Your task to perform on an android device: Add "macbook pro 15 inch" to the cart on target.com, then select checkout. Image 0: 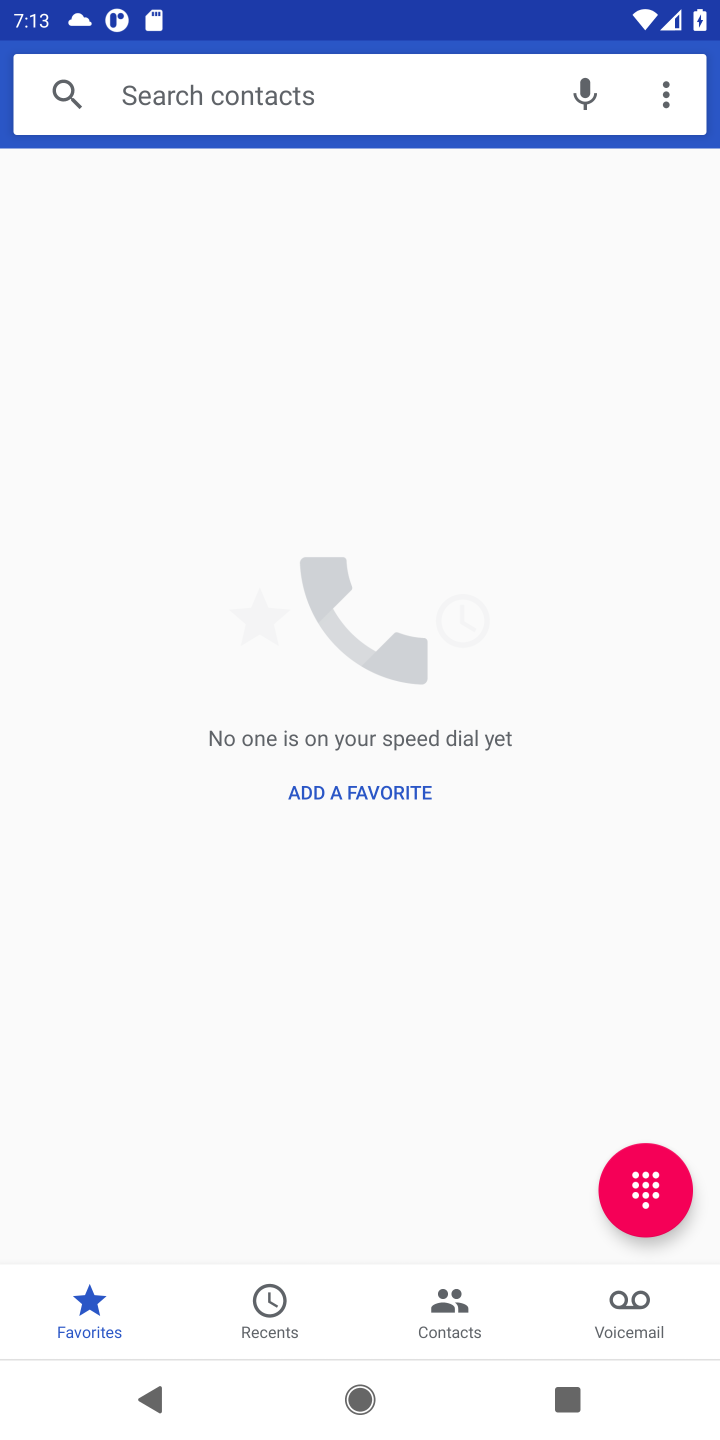
Step 0: press home button
Your task to perform on an android device: Add "macbook pro 15 inch" to the cart on target.com, then select checkout. Image 1: 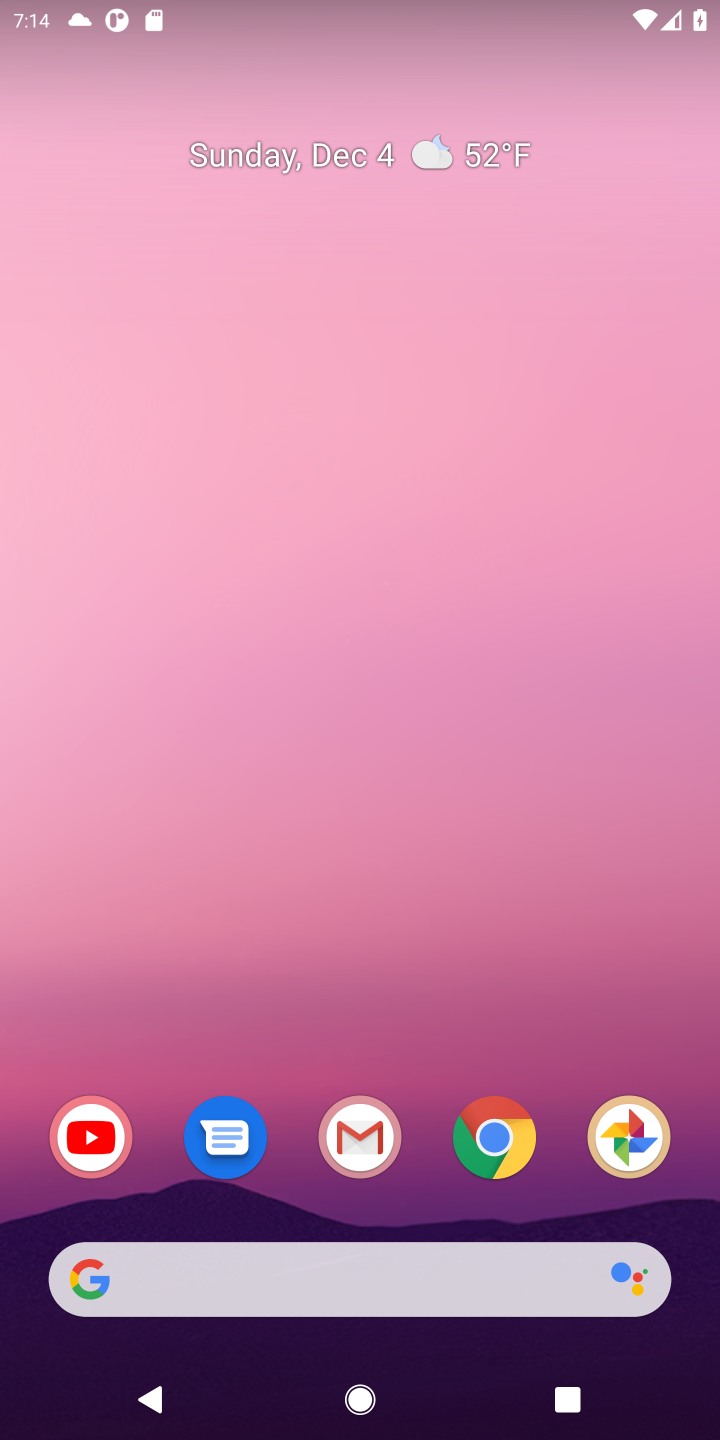
Step 1: click (495, 1139)
Your task to perform on an android device: Add "macbook pro 15 inch" to the cart on target.com, then select checkout. Image 2: 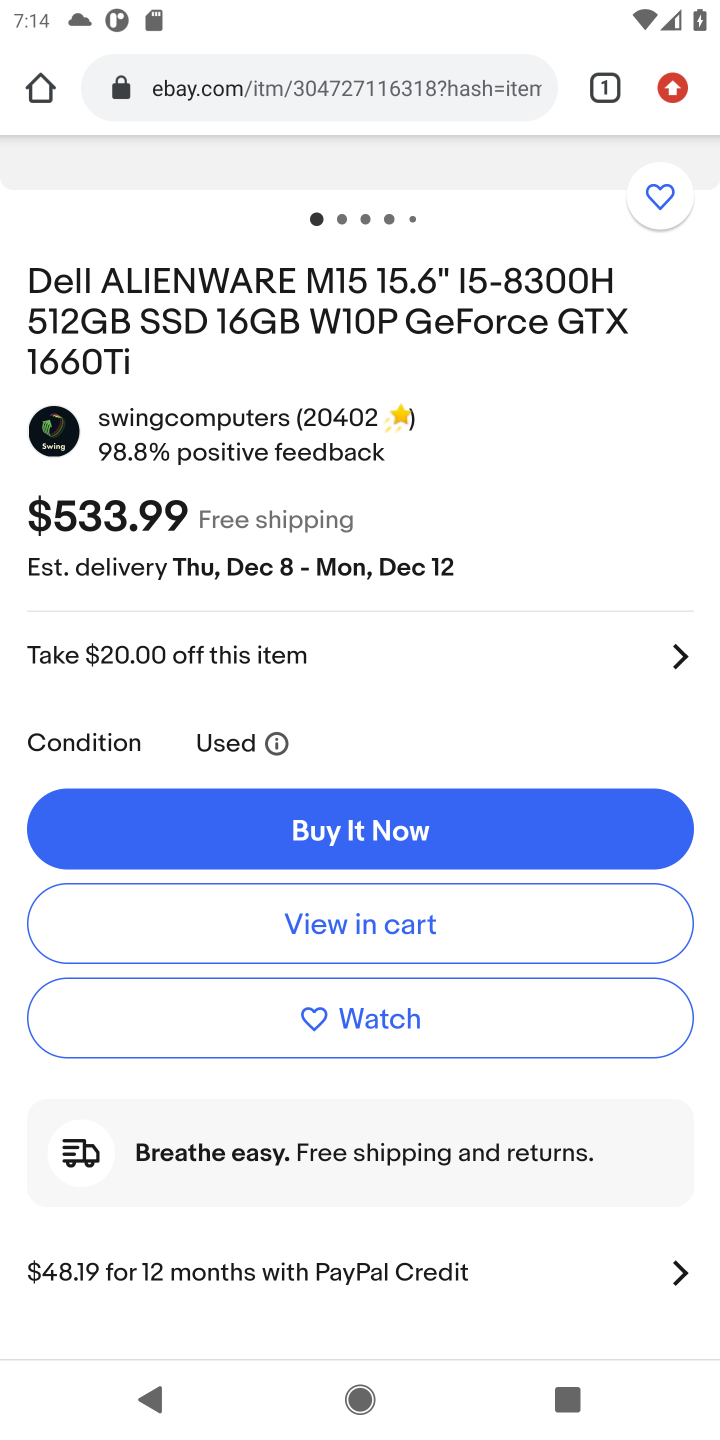
Step 2: click (420, 62)
Your task to perform on an android device: Add "macbook pro 15 inch" to the cart on target.com, then select checkout. Image 3: 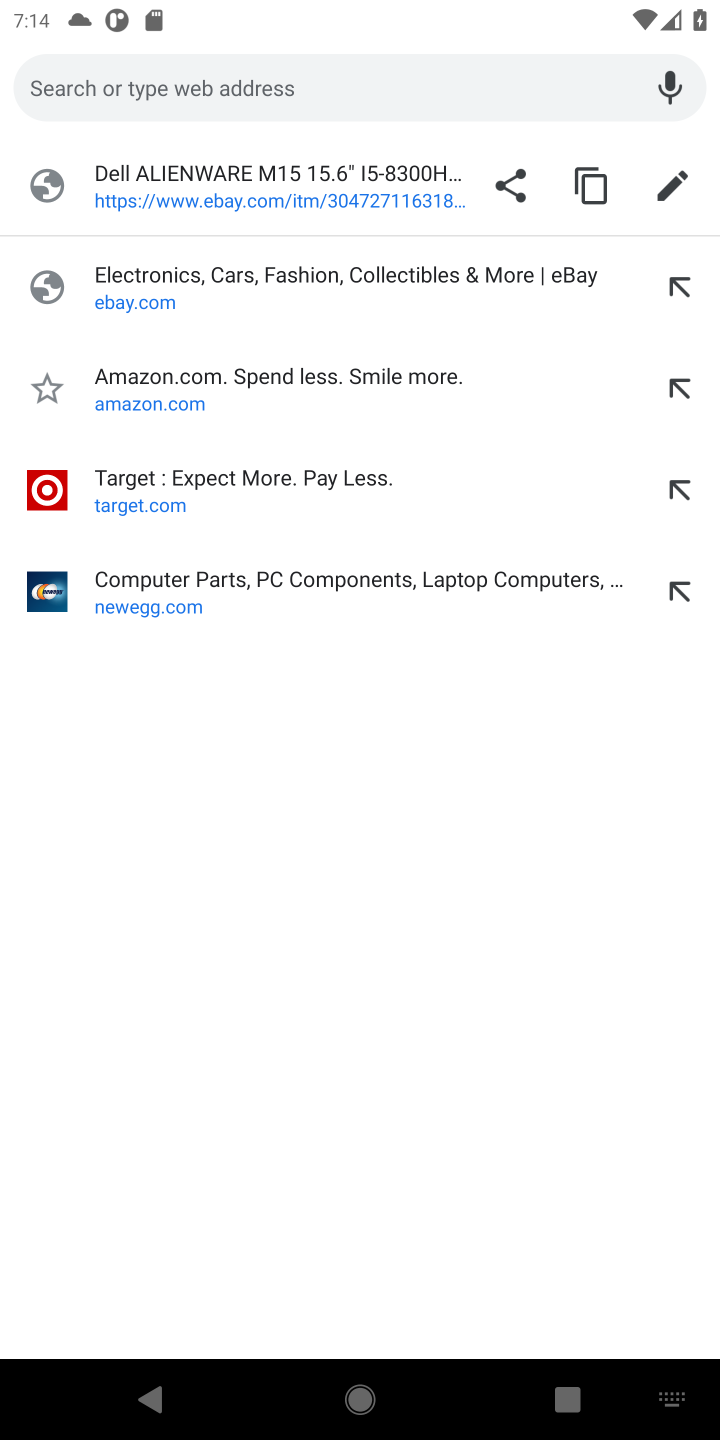
Step 3: type "target.com"
Your task to perform on an android device: Add "macbook pro 15 inch" to the cart on target.com, then select checkout. Image 4: 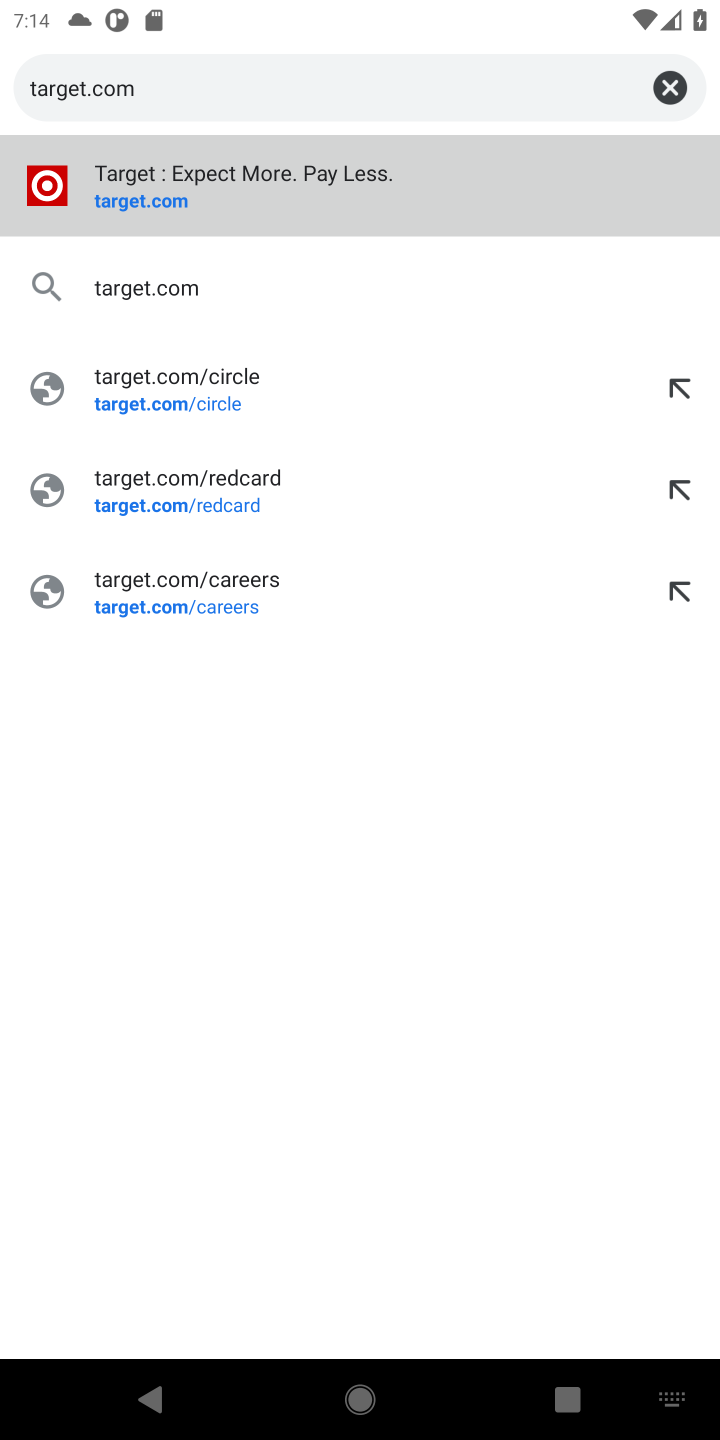
Step 4: click (135, 175)
Your task to perform on an android device: Add "macbook pro 15 inch" to the cart on target.com, then select checkout. Image 5: 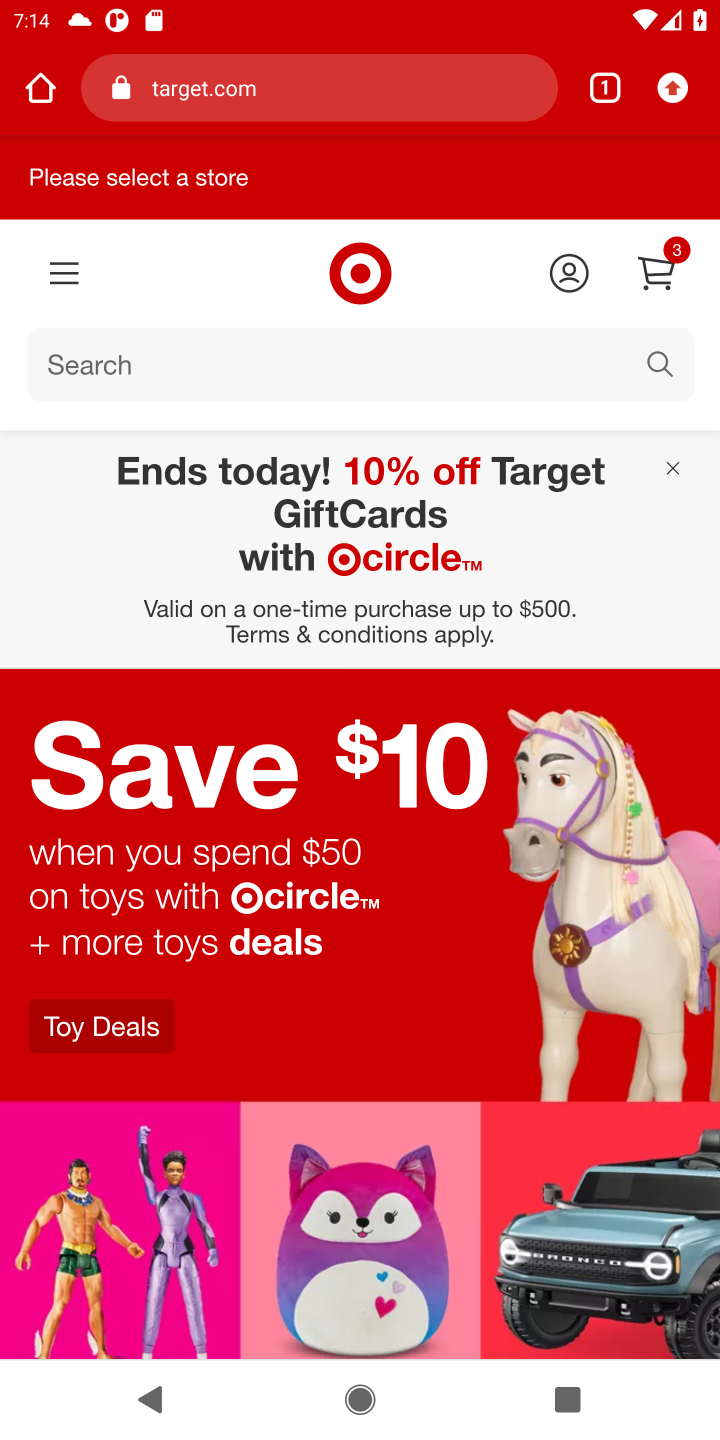
Step 5: click (184, 365)
Your task to perform on an android device: Add "macbook pro 15 inch" to the cart on target.com, then select checkout. Image 6: 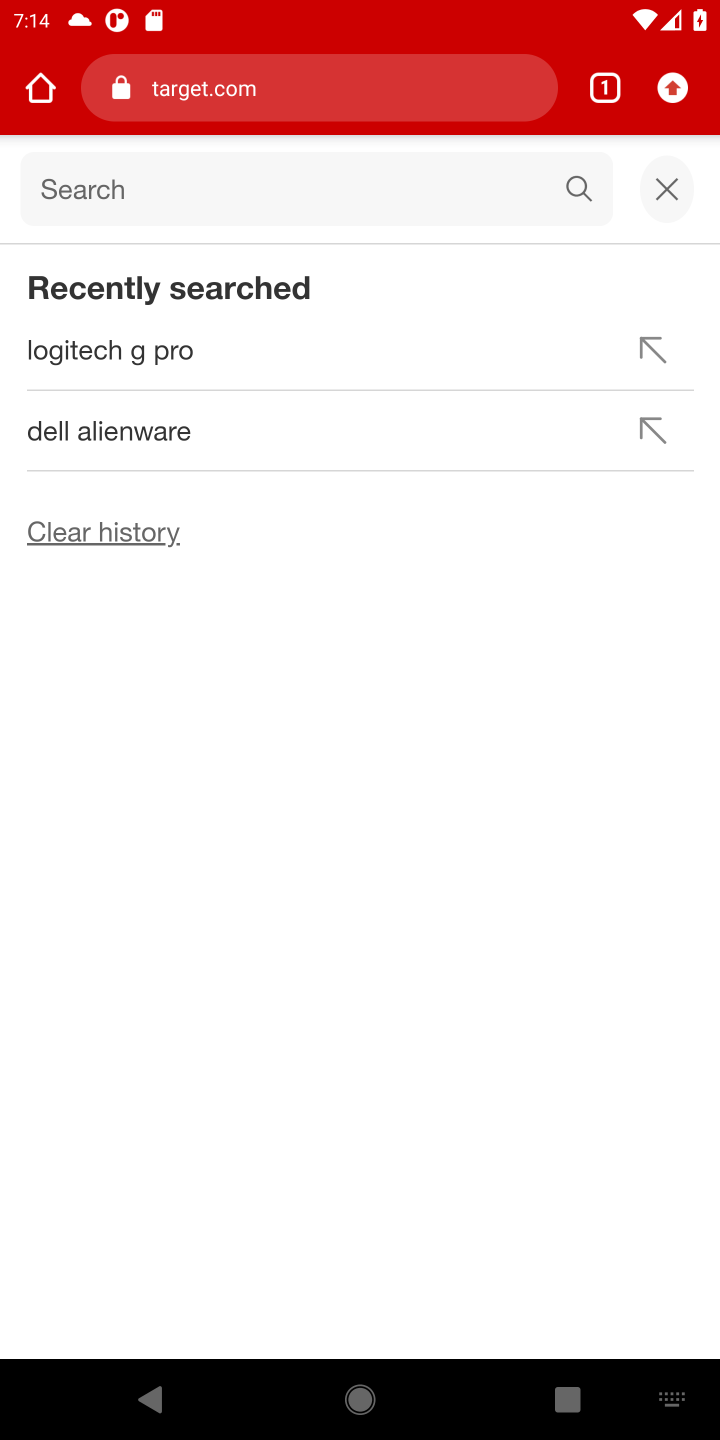
Step 6: type "macbook pro 15 inch"
Your task to perform on an android device: Add "macbook pro 15 inch" to the cart on target.com, then select checkout. Image 7: 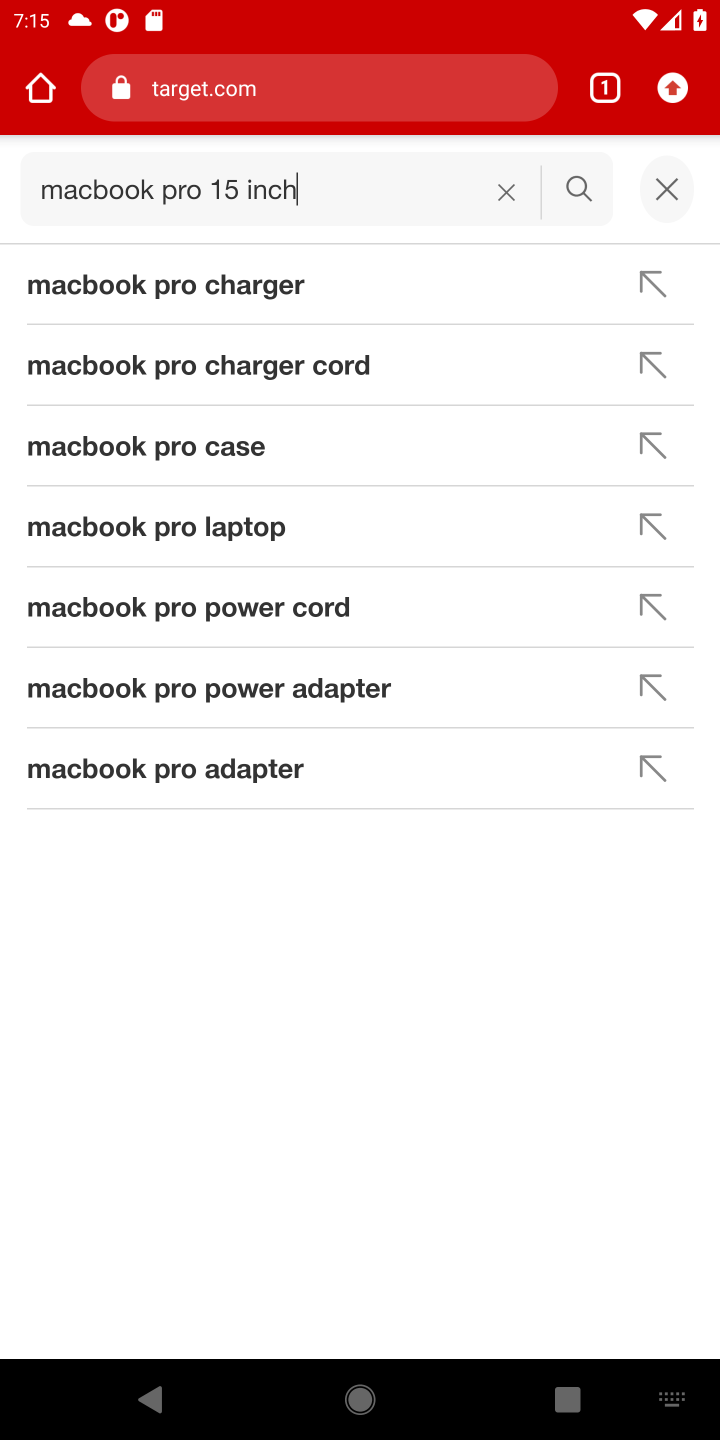
Step 7: click (579, 191)
Your task to perform on an android device: Add "macbook pro 15 inch" to the cart on target.com, then select checkout. Image 8: 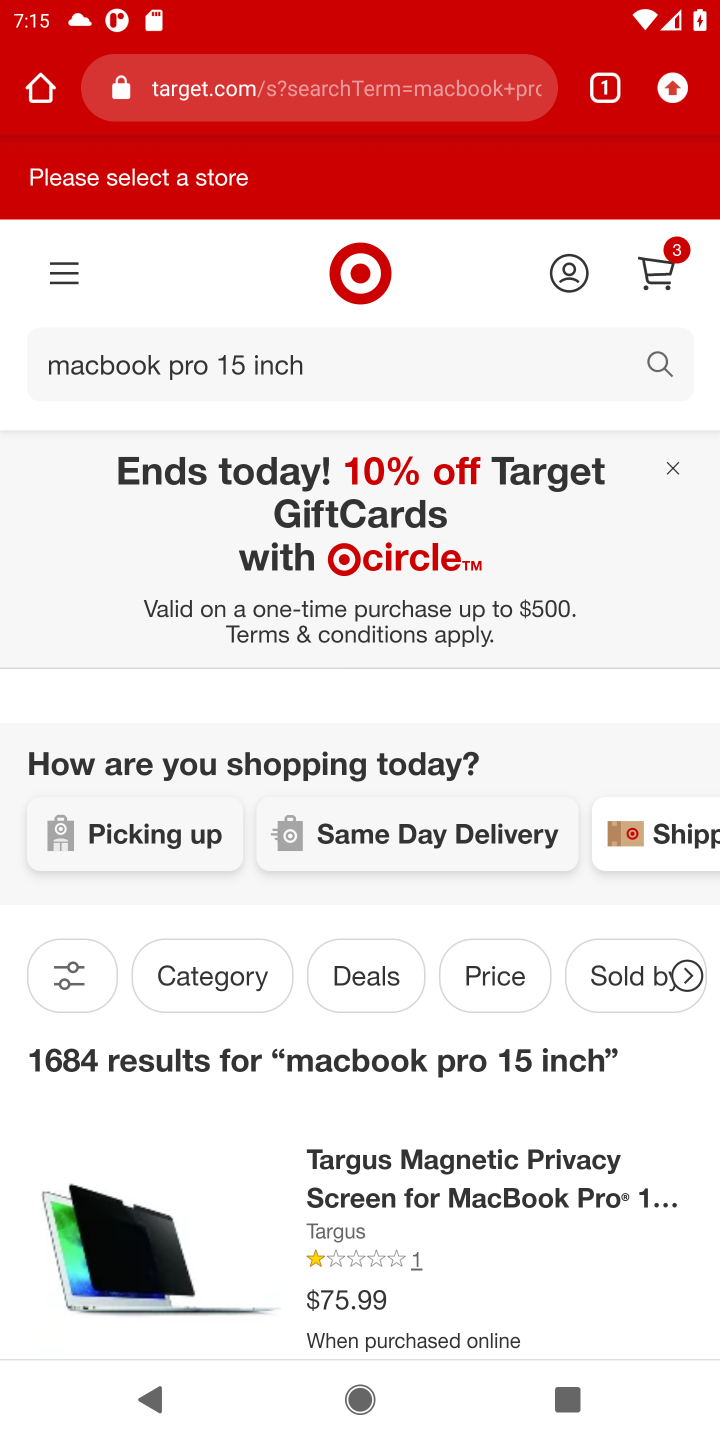
Step 8: drag from (462, 1131) to (438, 564)
Your task to perform on an android device: Add "macbook pro 15 inch" to the cart on target.com, then select checkout. Image 9: 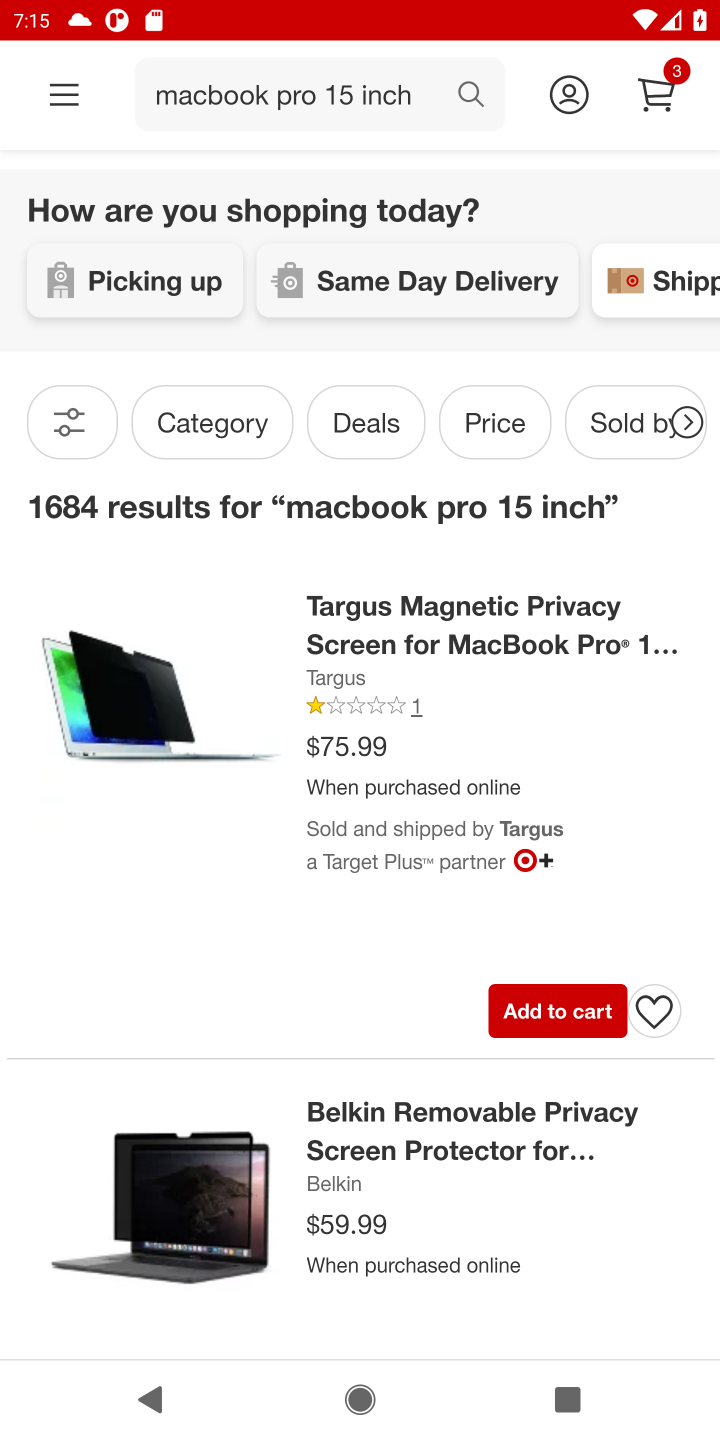
Step 9: click (399, 605)
Your task to perform on an android device: Add "macbook pro 15 inch" to the cart on target.com, then select checkout. Image 10: 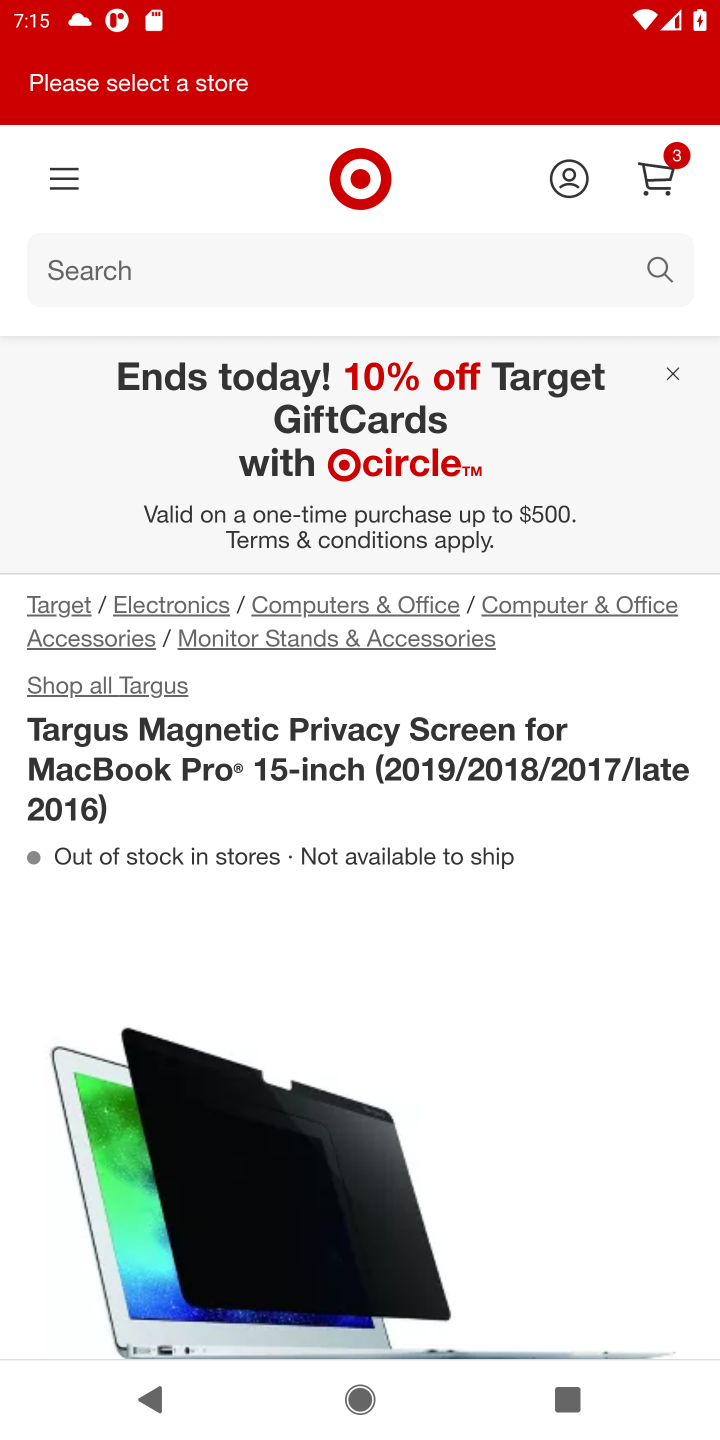
Step 10: drag from (385, 1170) to (364, 289)
Your task to perform on an android device: Add "macbook pro 15 inch" to the cart on target.com, then select checkout. Image 11: 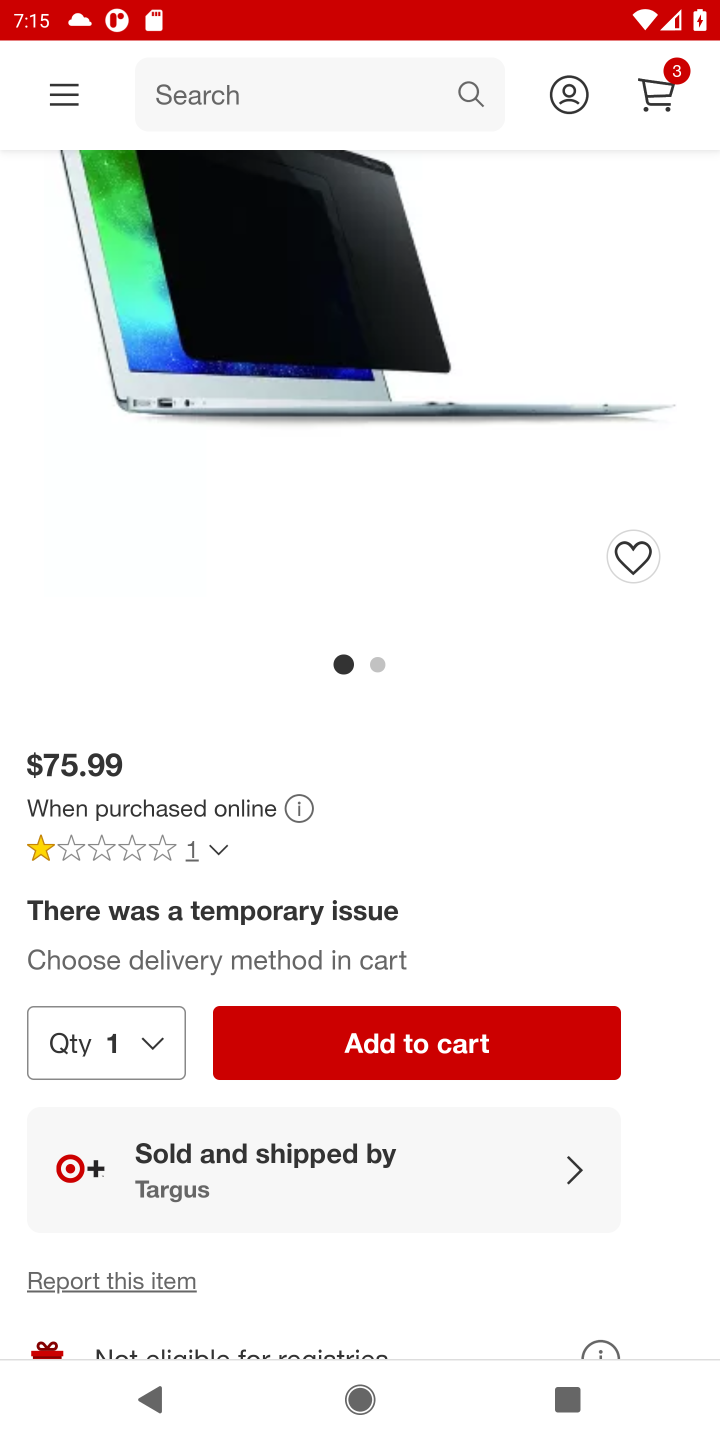
Step 11: click (406, 1047)
Your task to perform on an android device: Add "macbook pro 15 inch" to the cart on target.com, then select checkout. Image 12: 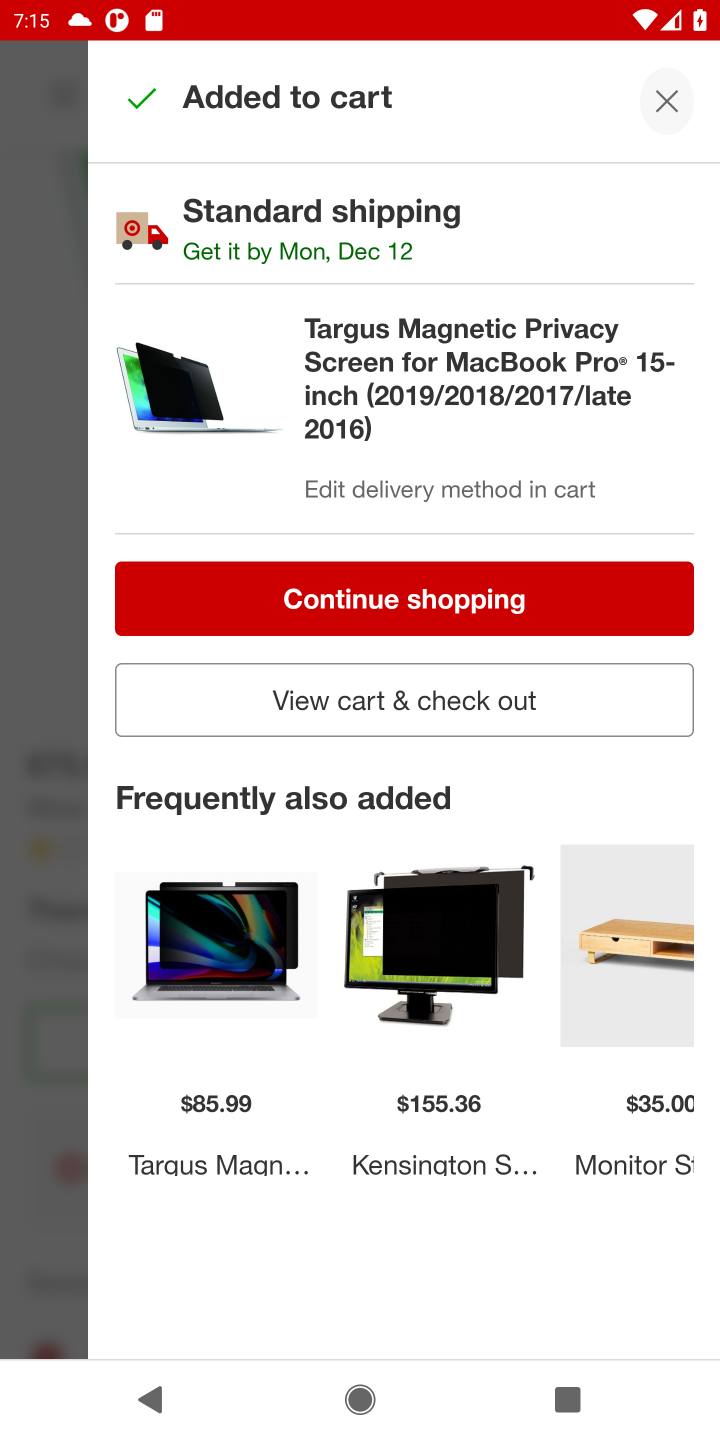
Step 12: click (361, 685)
Your task to perform on an android device: Add "macbook pro 15 inch" to the cart on target.com, then select checkout. Image 13: 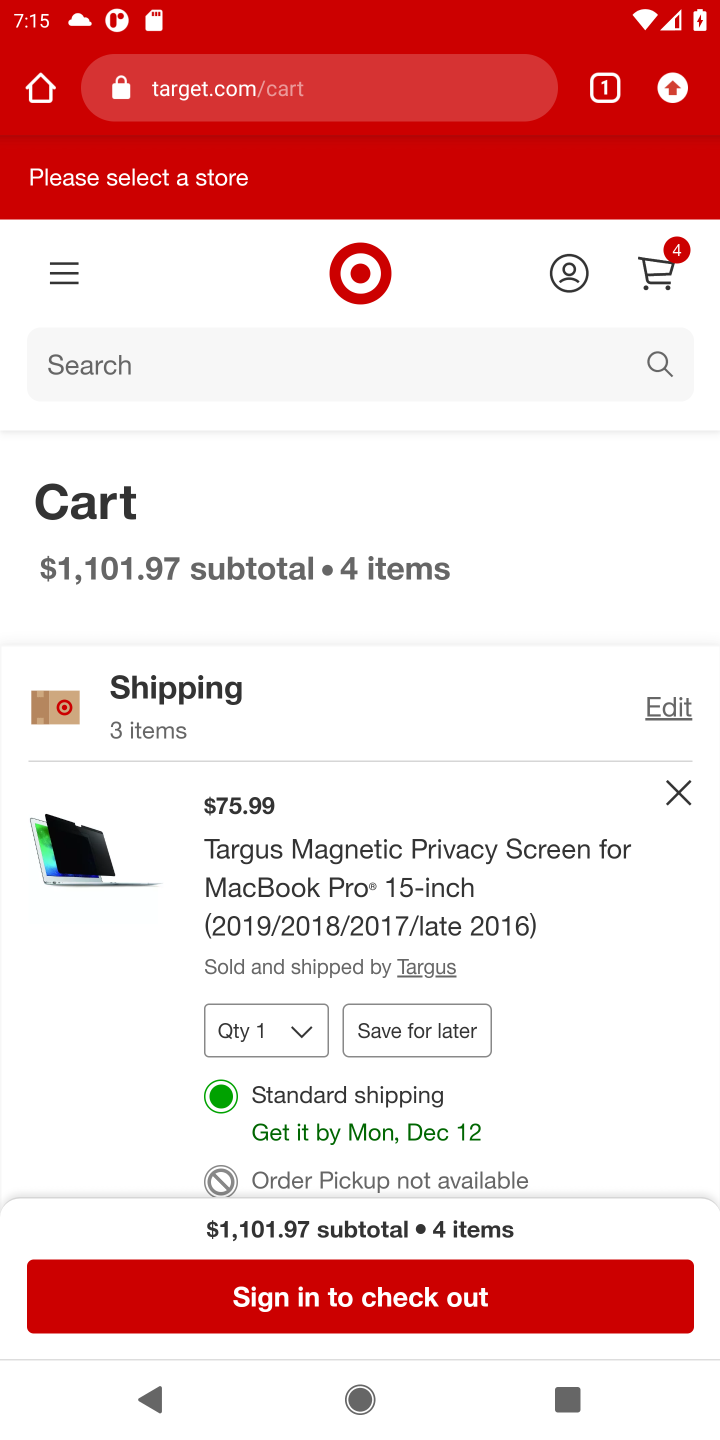
Step 13: click (344, 1301)
Your task to perform on an android device: Add "macbook pro 15 inch" to the cart on target.com, then select checkout. Image 14: 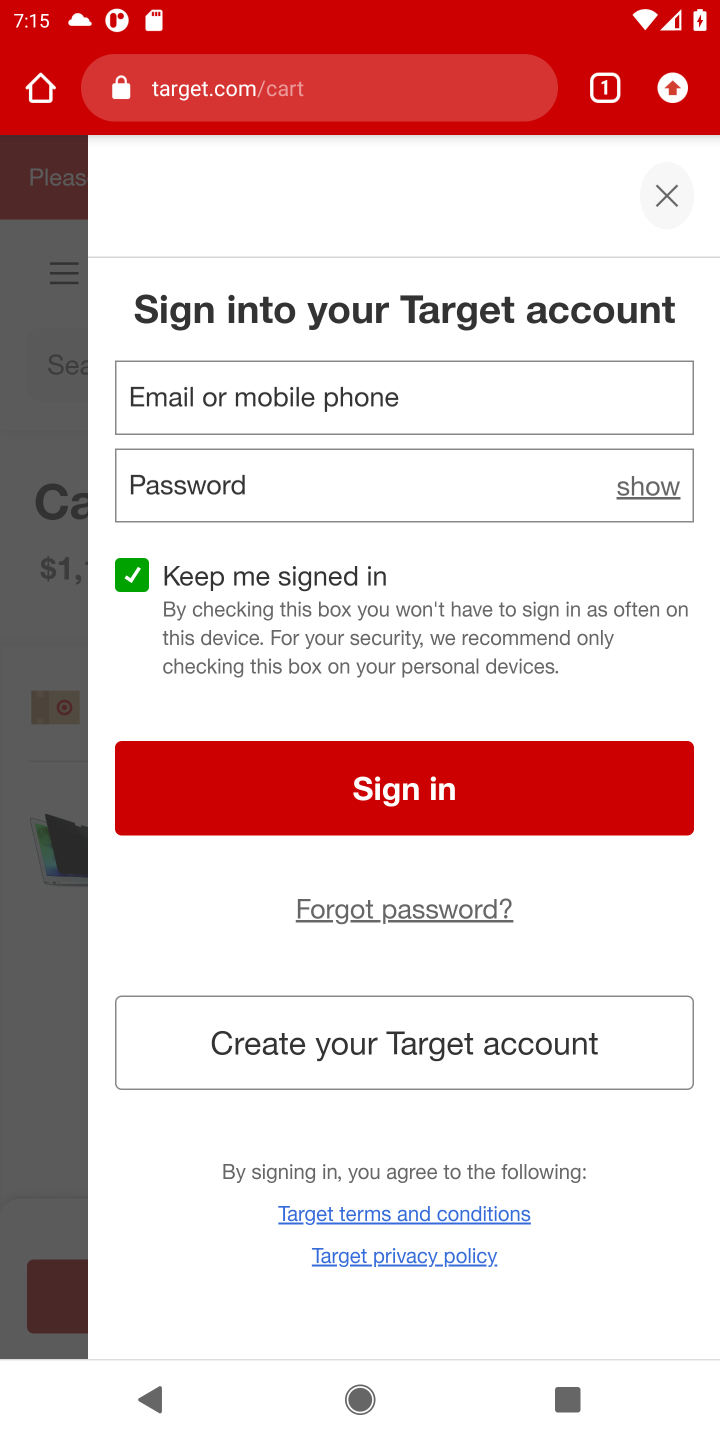
Step 14: task complete